Your task to perform on an android device: manage bookmarks in the chrome app Image 0: 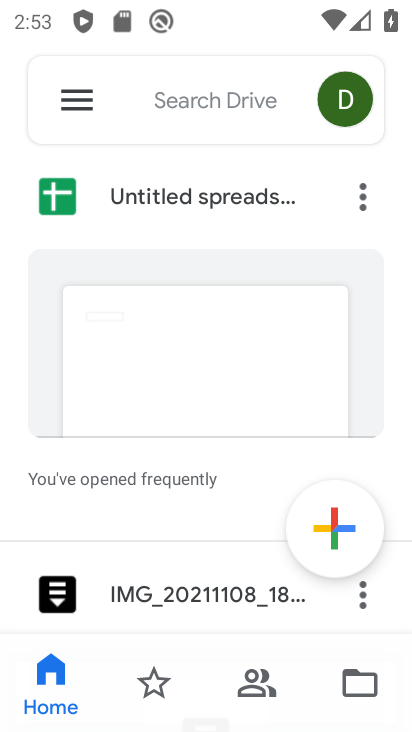
Step 0: press home button
Your task to perform on an android device: manage bookmarks in the chrome app Image 1: 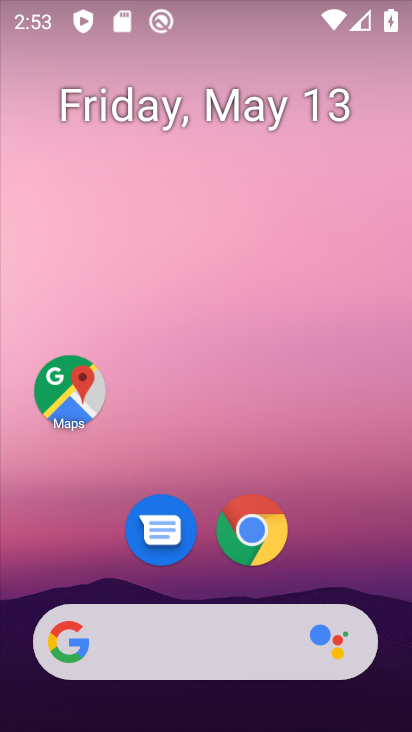
Step 1: click (243, 539)
Your task to perform on an android device: manage bookmarks in the chrome app Image 2: 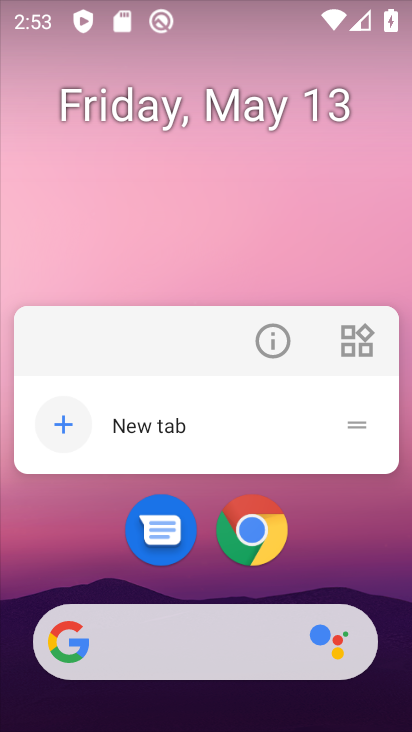
Step 2: click (255, 522)
Your task to perform on an android device: manage bookmarks in the chrome app Image 3: 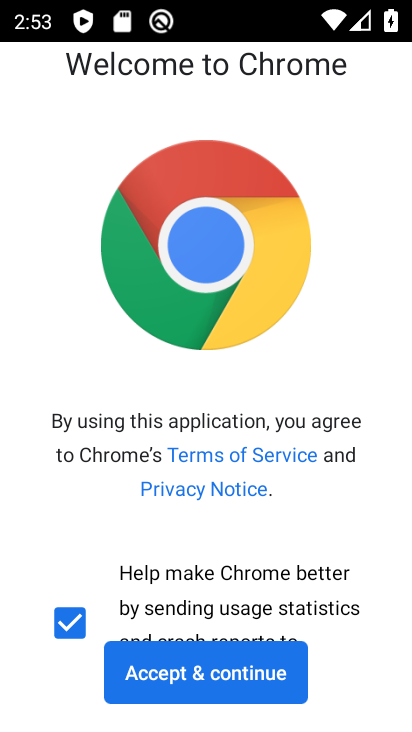
Step 3: click (186, 683)
Your task to perform on an android device: manage bookmarks in the chrome app Image 4: 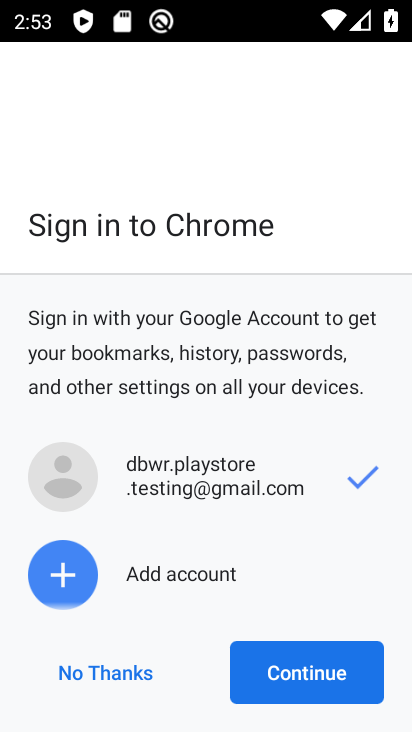
Step 4: click (267, 651)
Your task to perform on an android device: manage bookmarks in the chrome app Image 5: 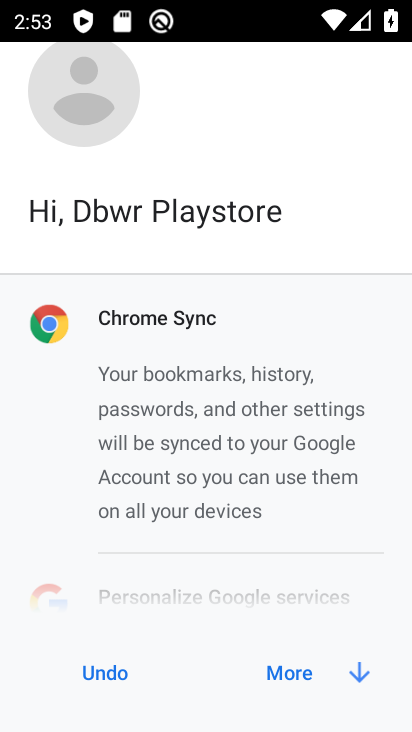
Step 5: click (318, 679)
Your task to perform on an android device: manage bookmarks in the chrome app Image 6: 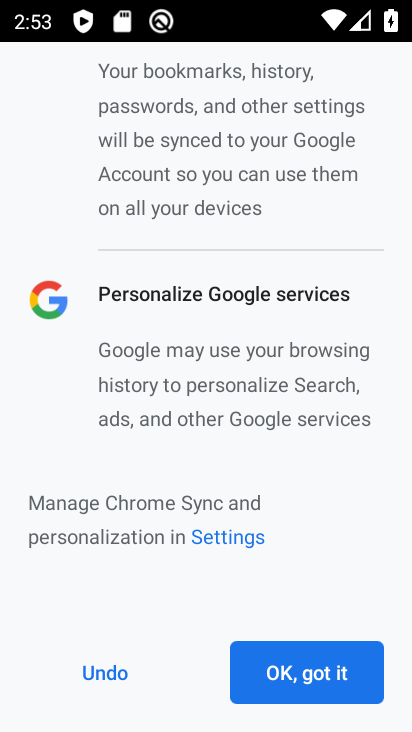
Step 6: click (318, 679)
Your task to perform on an android device: manage bookmarks in the chrome app Image 7: 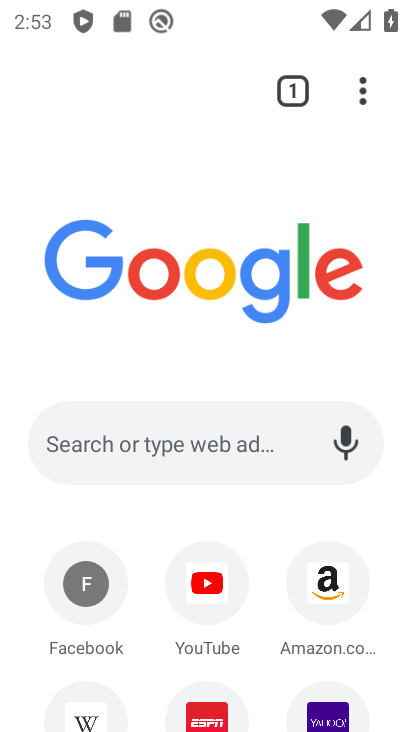
Step 7: task complete